Your task to perform on an android device: open app "Google Photos" Image 0: 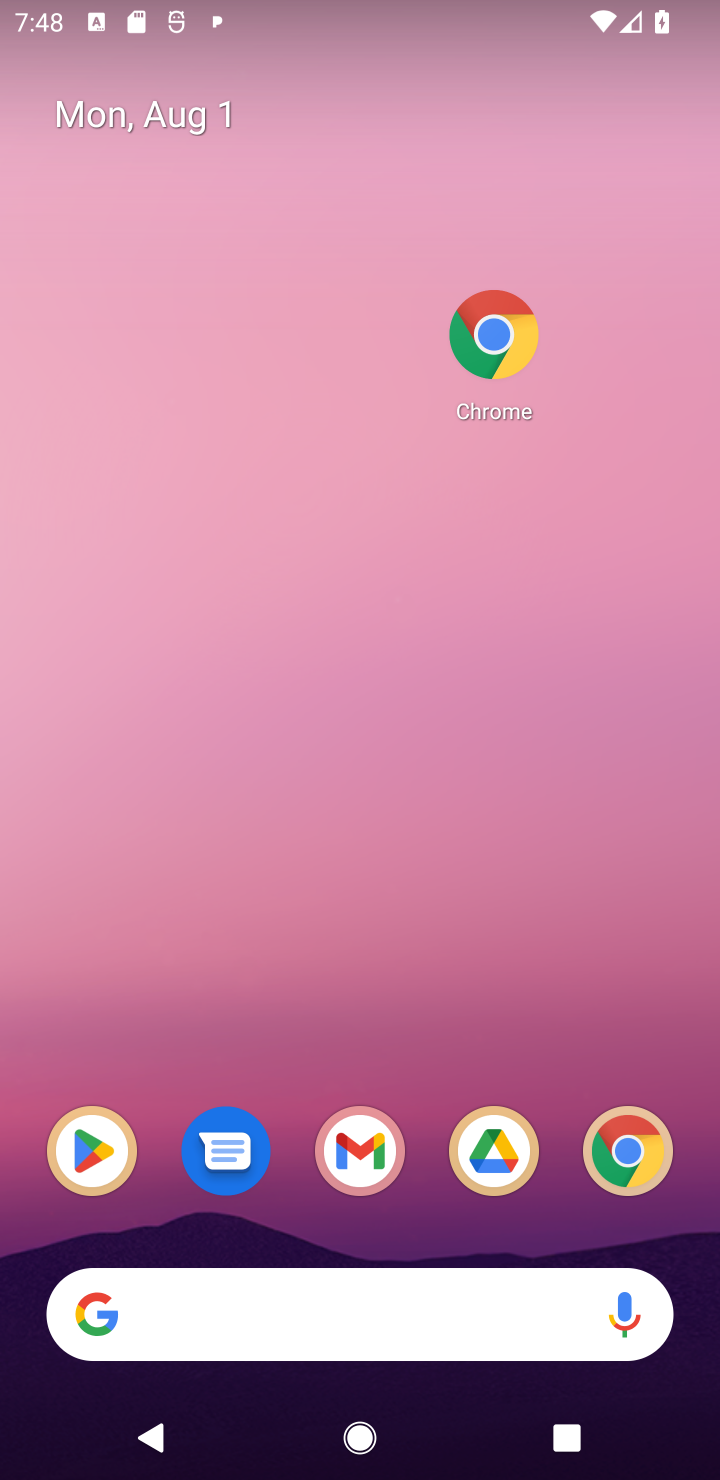
Step 0: drag from (407, 1153) to (437, 3)
Your task to perform on an android device: open app "Google Photos" Image 1: 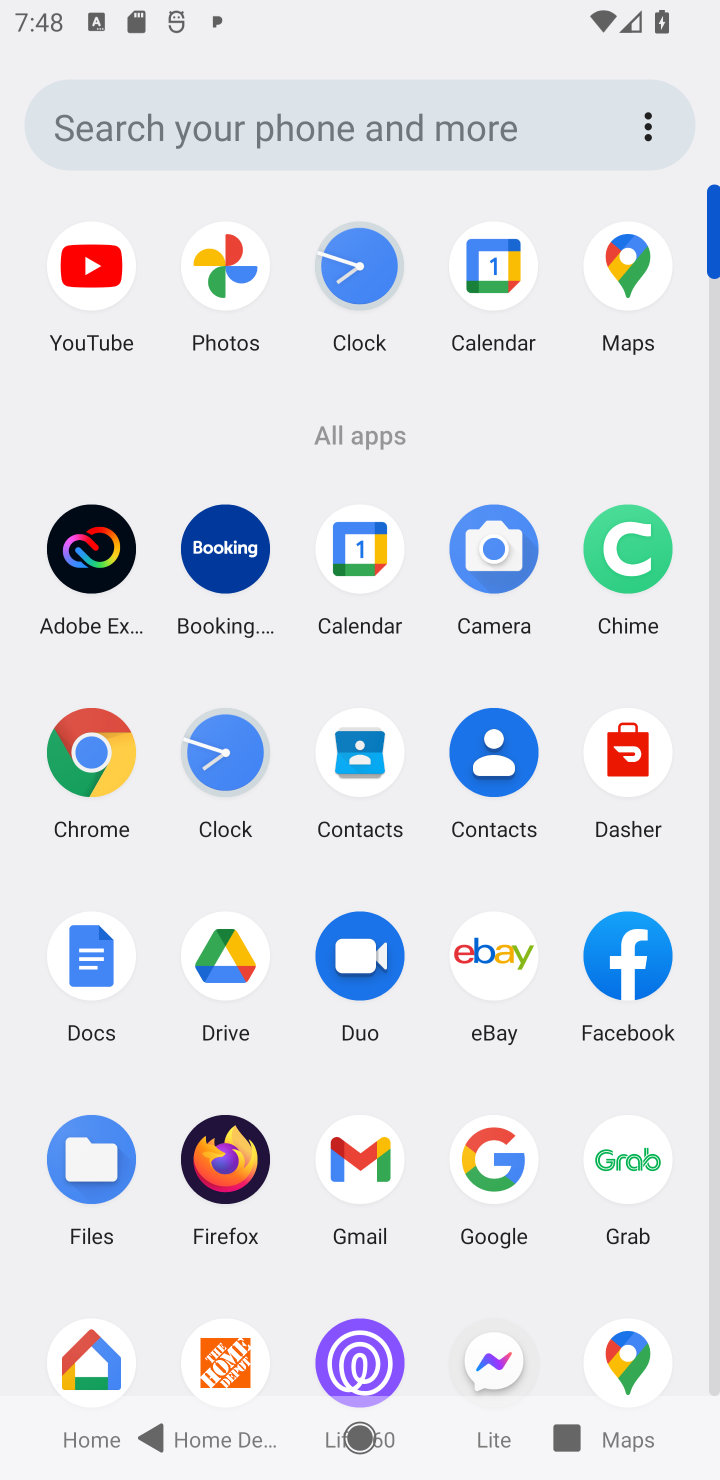
Step 1: click (224, 262)
Your task to perform on an android device: open app "Google Photos" Image 2: 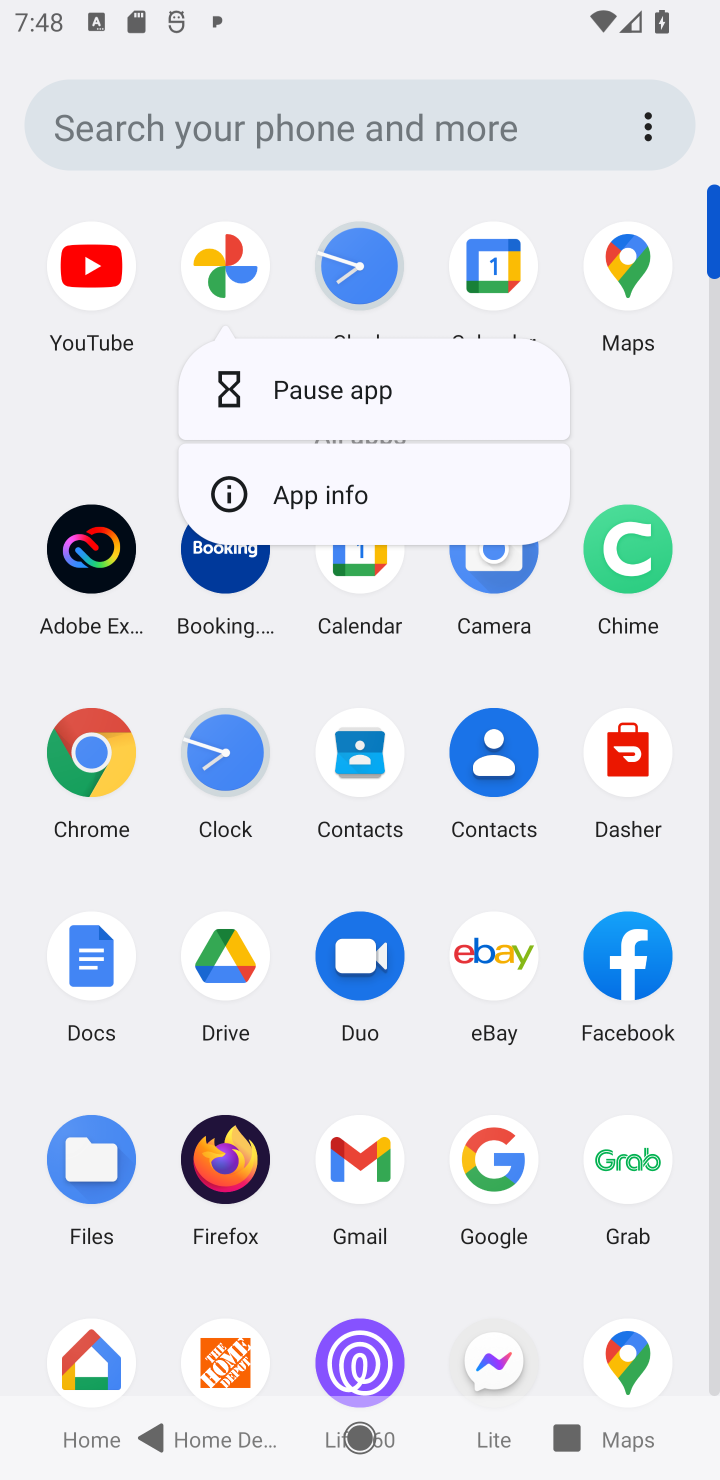
Step 2: click (220, 271)
Your task to perform on an android device: open app "Google Photos" Image 3: 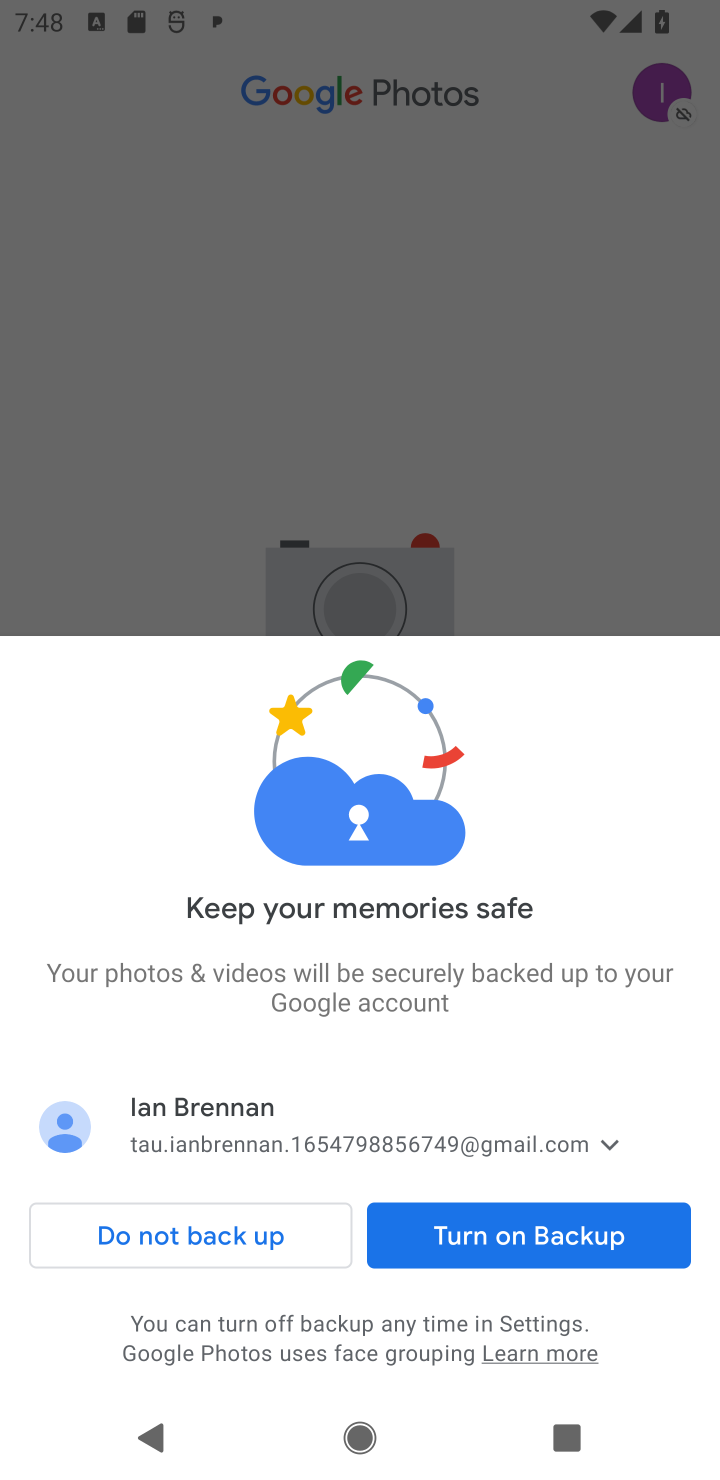
Step 3: task complete